Your task to perform on an android device: Go to display settings Image 0: 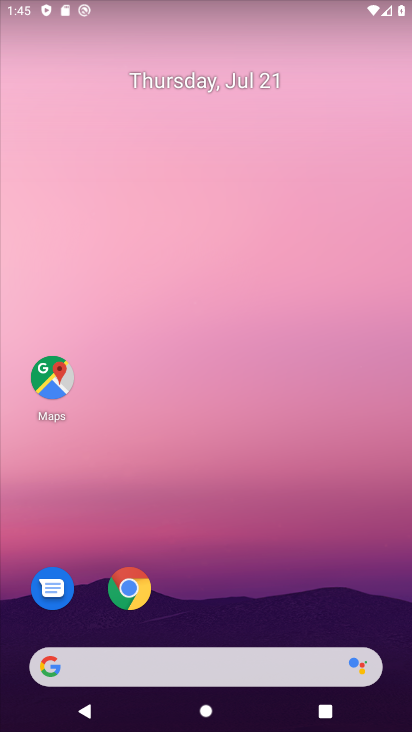
Step 0: press home button
Your task to perform on an android device: Go to display settings Image 1: 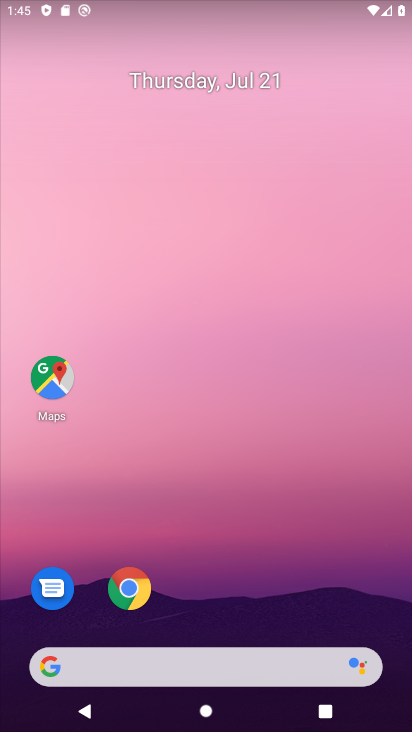
Step 1: drag from (323, 44) to (68, 277)
Your task to perform on an android device: Go to display settings Image 2: 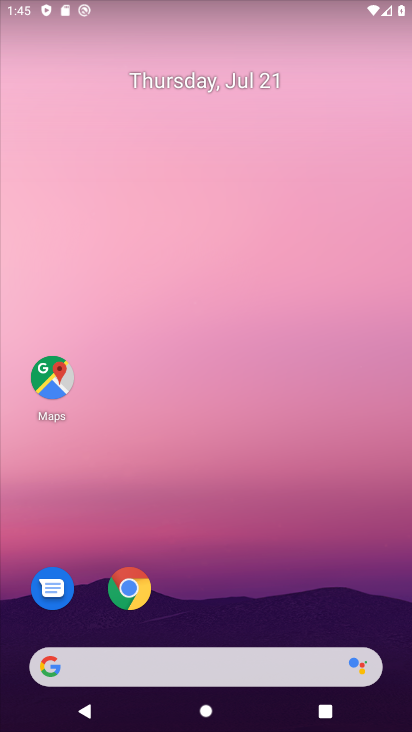
Step 2: drag from (354, 629) to (123, 11)
Your task to perform on an android device: Go to display settings Image 3: 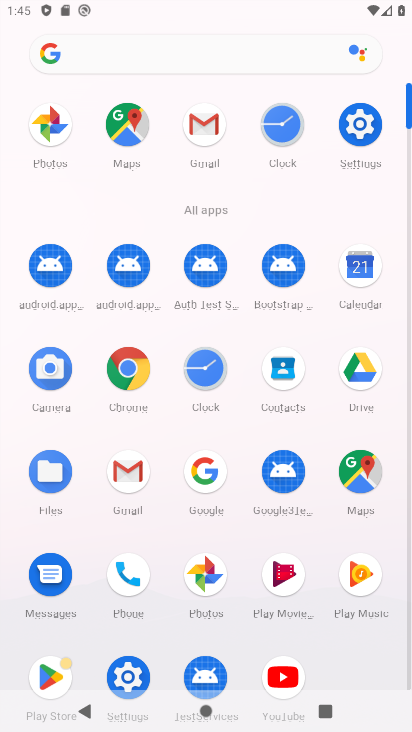
Step 3: click (106, 691)
Your task to perform on an android device: Go to display settings Image 4: 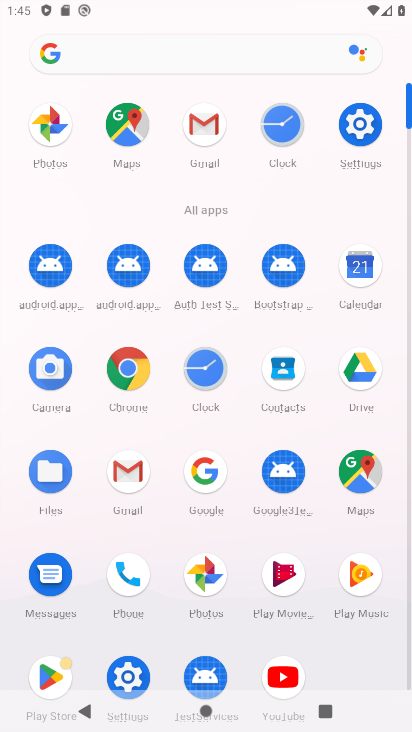
Step 4: click (123, 670)
Your task to perform on an android device: Go to display settings Image 5: 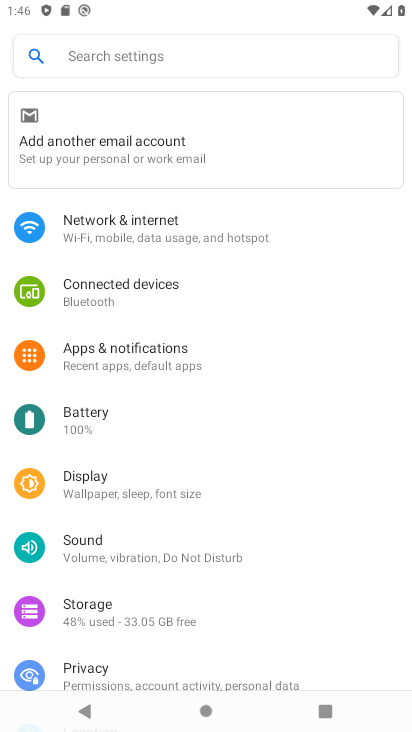
Step 5: click (51, 491)
Your task to perform on an android device: Go to display settings Image 6: 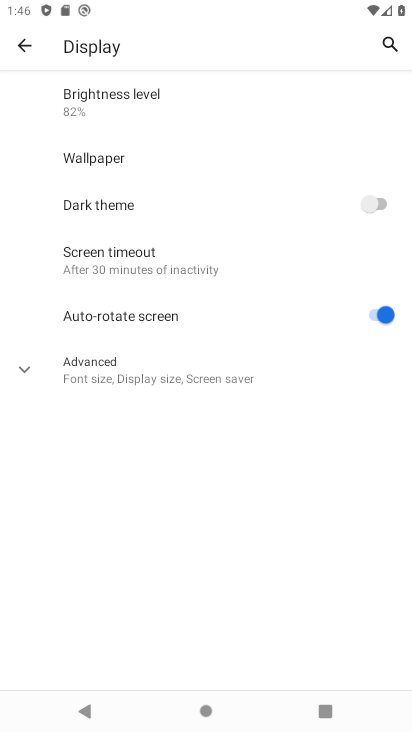
Step 6: task complete